Your task to perform on an android device: Search for vegetarian restaurants on Maps Image 0: 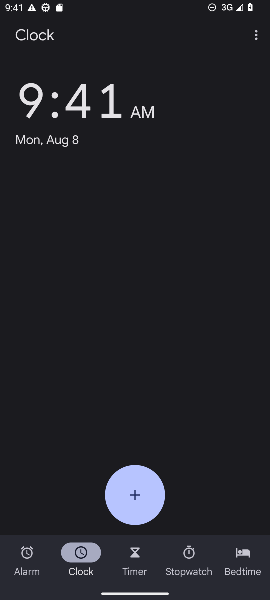
Step 0: press home button
Your task to perform on an android device: Search for vegetarian restaurants on Maps Image 1: 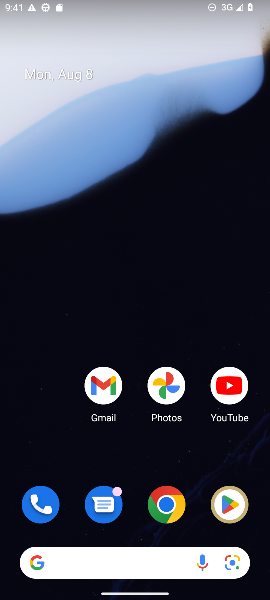
Step 1: drag from (131, 414) to (261, 1)
Your task to perform on an android device: Search for vegetarian restaurants on Maps Image 2: 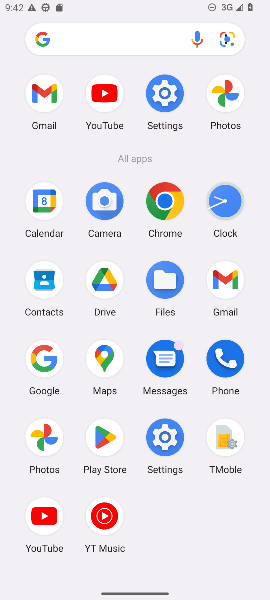
Step 2: click (101, 368)
Your task to perform on an android device: Search for vegetarian restaurants on Maps Image 3: 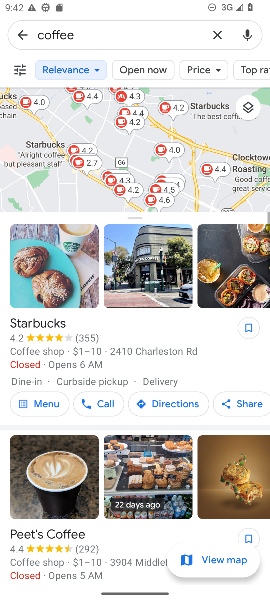
Step 3: click (110, 35)
Your task to perform on an android device: Search for vegetarian restaurants on Maps Image 4: 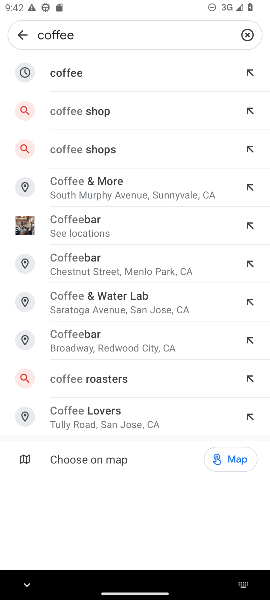
Step 4: click (247, 35)
Your task to perform on an android device: Search for vegetarian restaurants on Maps Image 5: 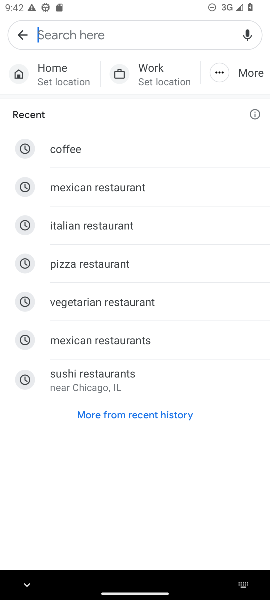
Step 5: type "Vegetarian restaurants"
Your task to perform on an android device: Search for vegetarian restaurants on Maps Image 6: 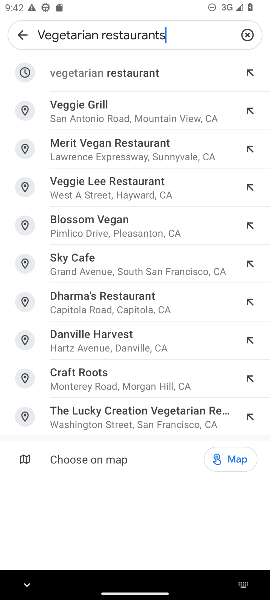
Step 6: click (120, 74)
Your task to perform on an android device: Search for vegetarian restaurants on Maps Image 7: 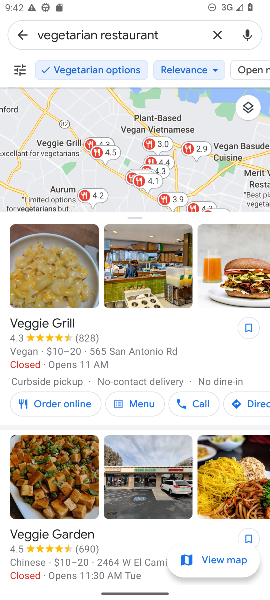
Step 7: task complete